Your task to perform on an android device: Play the last video I watched on Youtube Image 0: 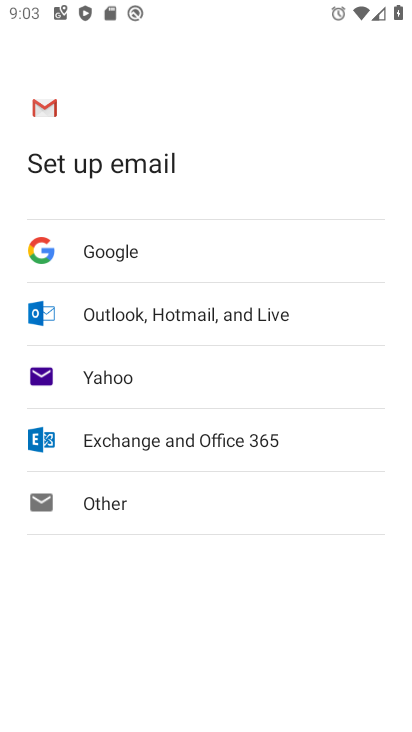
Step 0: press home button
Your task to perform on an android device: Play the last video I watched on Youtube Image 1: 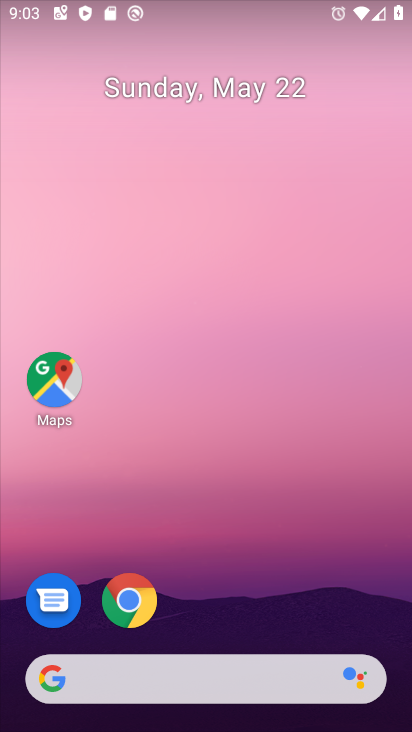
Step 1: drag from (133, 684) to (162, 158)
Your task to perform on an android device: Play the last video I watched on Youtube Image 2: 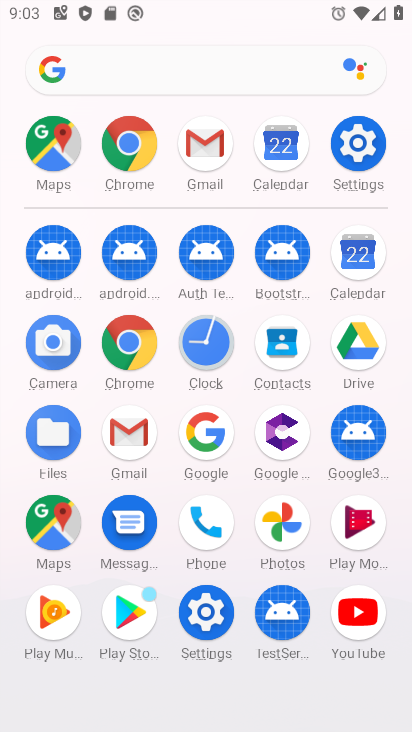
Step 2: click (356, 607)
Your task to perform on an android device: Play the last video I watched on Youtube Image 3: 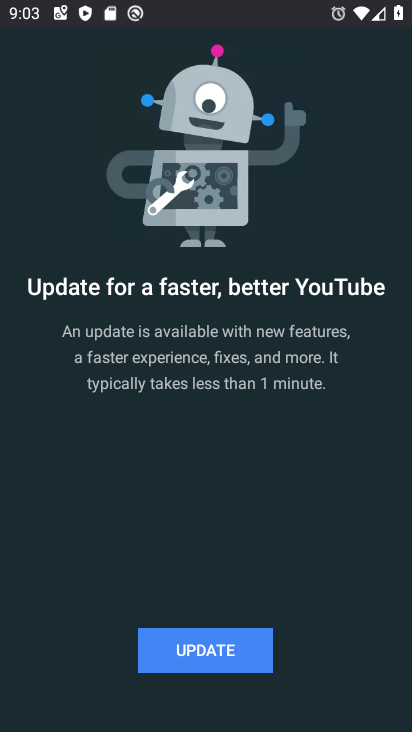
Step 3: click (255, 653)
Your task to perform on an android device: Play the last video I watched on Youtube Image 4: 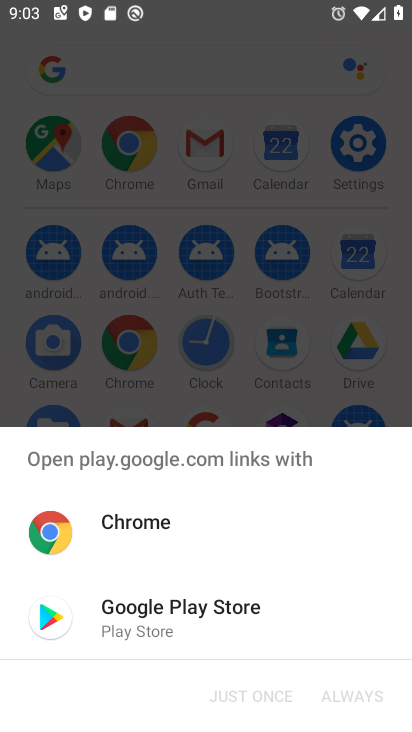
Step 4: click (216, 624)
Your task to perform on an android device: Play the last video I watched on Youtube Image 5: 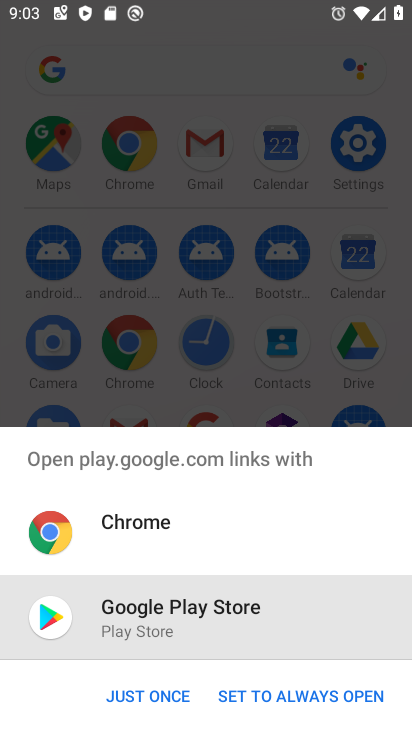
Step 5: click (163, 701)
Your task to perform on an android device: Play the last video I watched on Youtube Image 6: 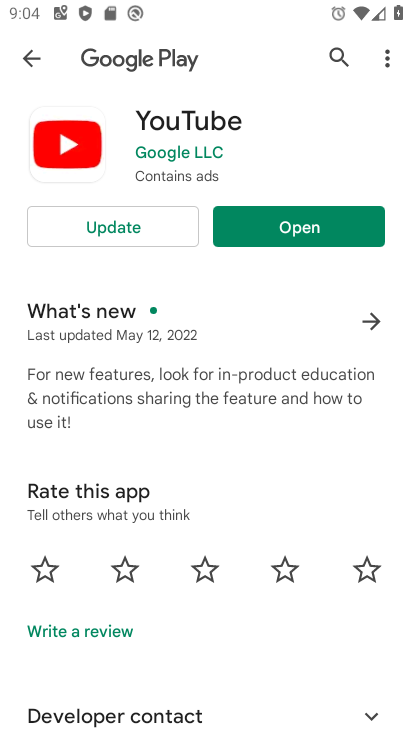
Step 6: click (92, 236)
Your task to perform on an android device: Play the last video I watched on Youtube Image 7: 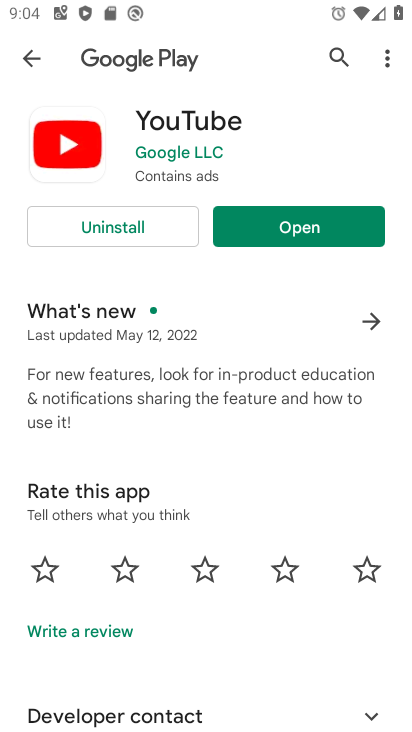
Step 7: task complete